Your task to perform on an android device: Open Maps and search for coffee Image 0: 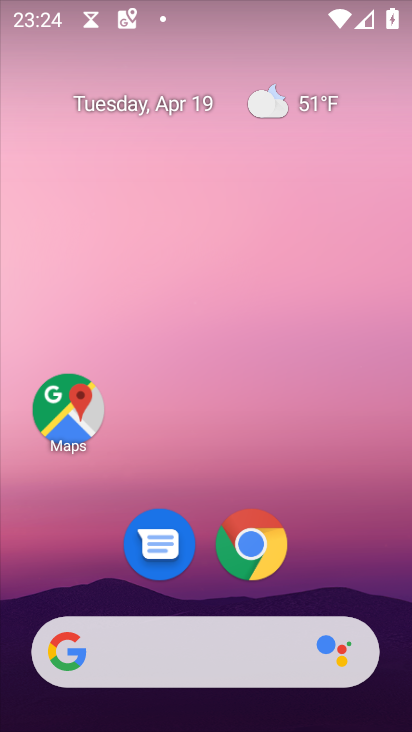
Step 0: drag from (344, 508) to (308, 78)
Your task to perform on an android device: Open Maps and search for coffee Image 1: 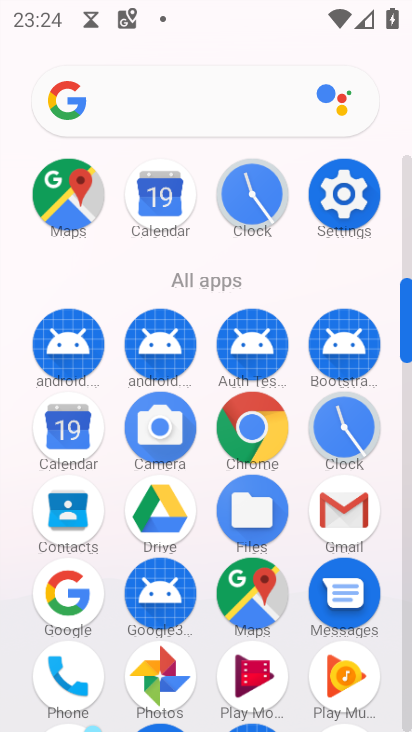
Step 1: click (54, 199)
Your task to perform on an android device: Open Maps and search for coffee Image 2: 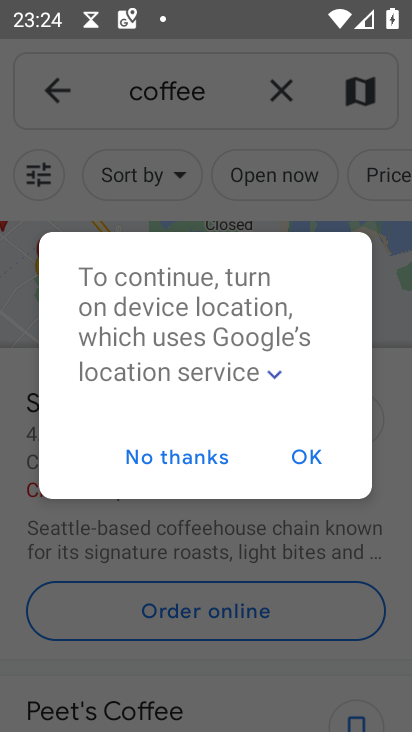
Step 2: click (174, 456)
Your task to perform on an android device: Open Maps and search for coffee Image 3: 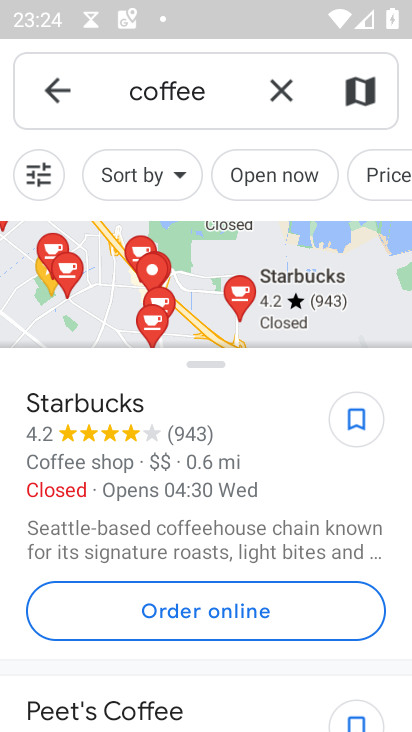
Step 3: task complete